Your task to perform on an android device: turn notification dots on Image 0: 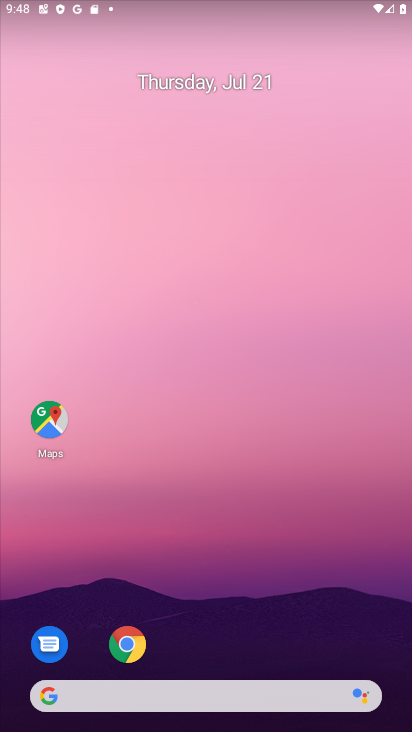
Step 0: drag from (209, 657) to (233, 78)
Your task to perform on an android device: turn notification dots on Image 1: 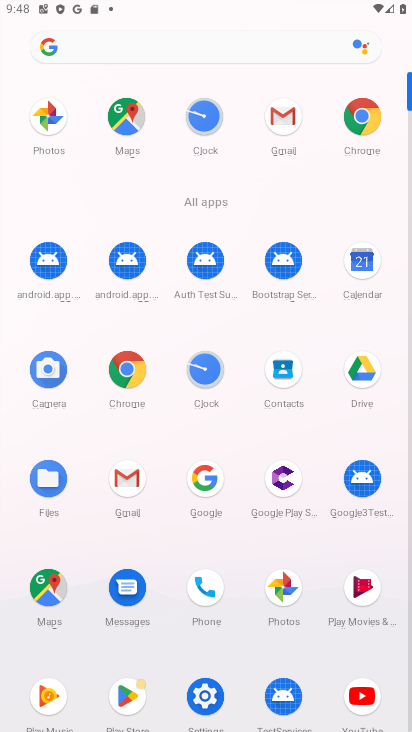
Step 1: click (202, 687)
Your task to perform on an android device: turn notification dots on Image 2: 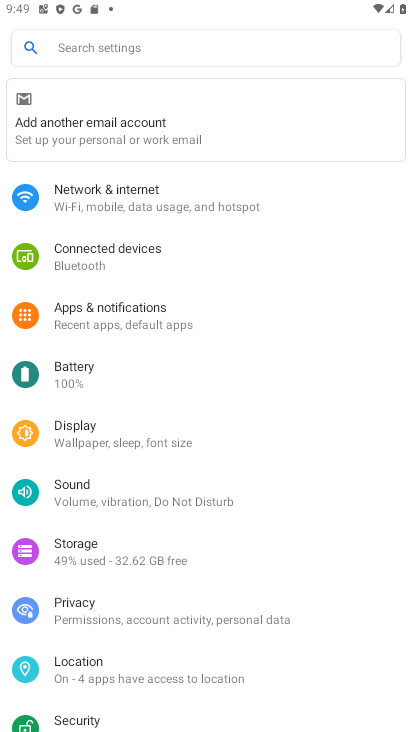
Step 2: click (138, 307)
Your task to perform on an android device: turn notification dots on Image 3: 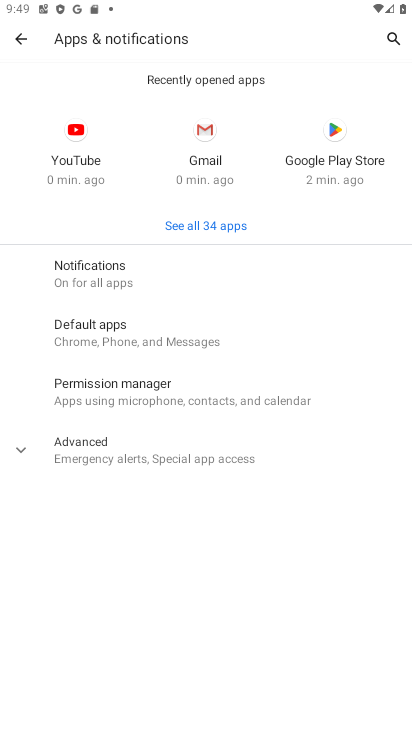
Step 3: click (88, 270)
Your task to perform on an android device: turn notification dots on Image 4: 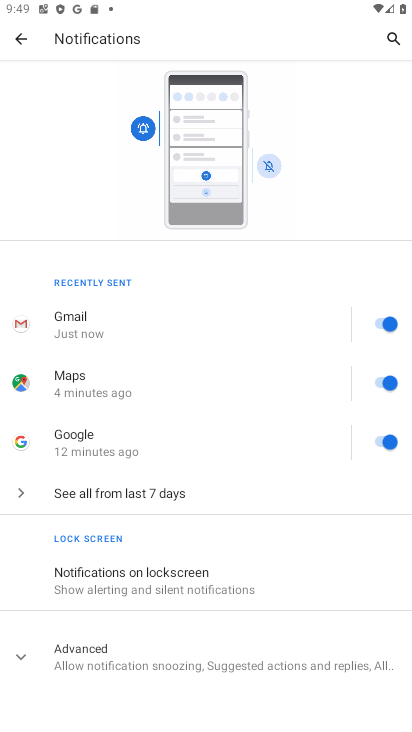
Step 4: click (23, 648)
Your task to perform on an android device: turn notification dots on Image 5: 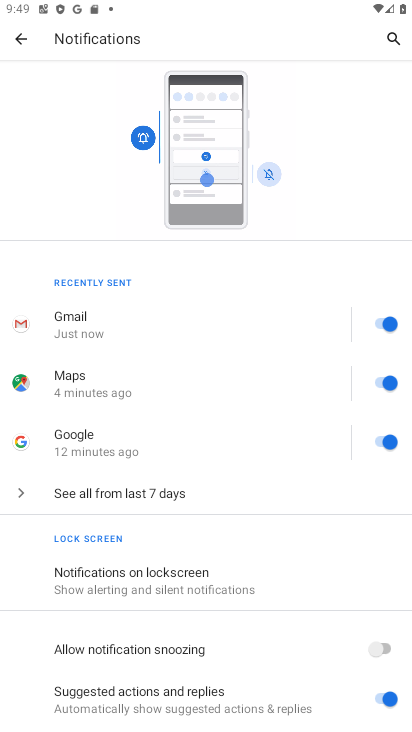
Step 5: task complete